Your task to perform on an android device: Go to wifi settings Image 0: 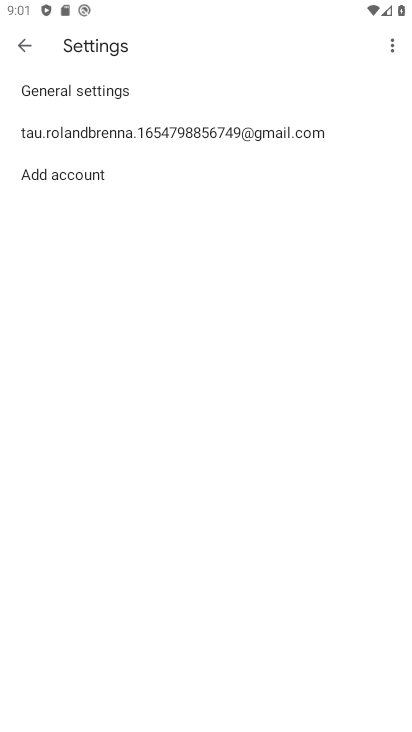
Step 0: press home button
Your task to perform on an android device: Go to wifi settings Image 1: 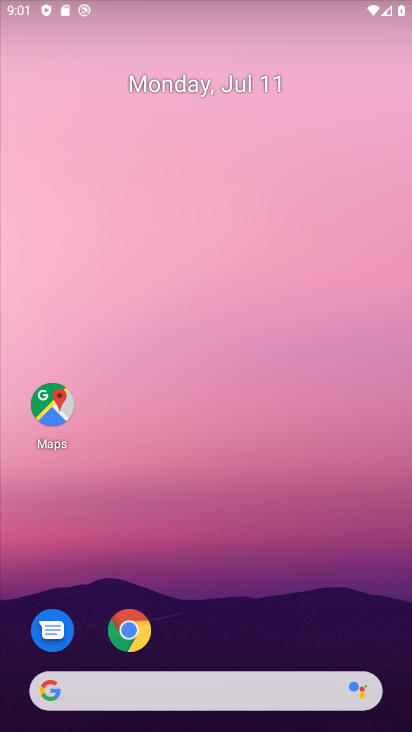
Step 1: drag from (299, 698) to (299, 113)
Your task to perform on an android device: Go to wifi settings Image 2: 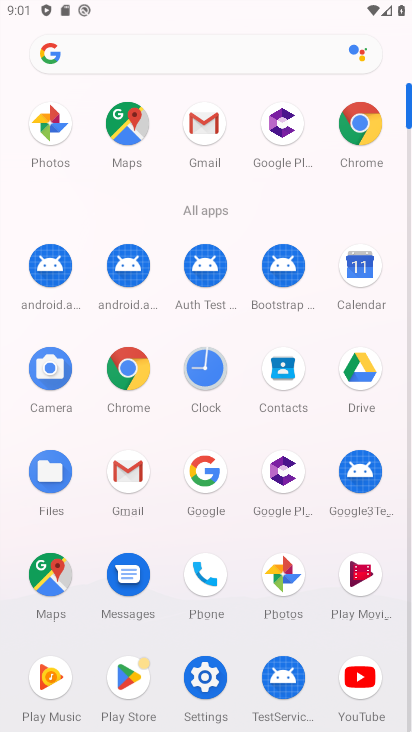
Step 2: click (199, 679)
Your task to perform on an android device: Go to wifi settings Image 3: 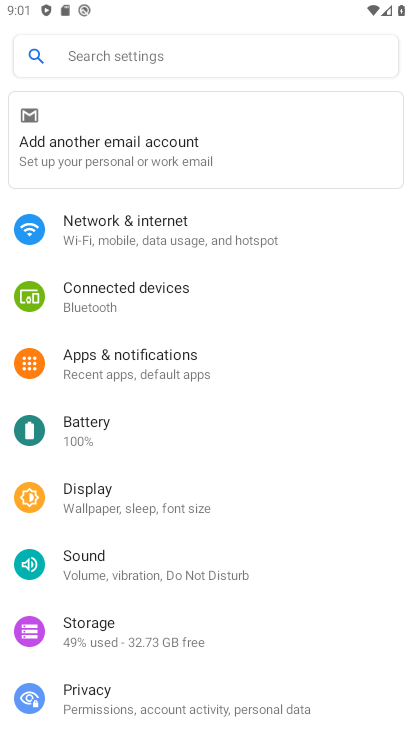
Step 3: click (143, 232)
Your task to perform on an android device: Go to wifi settings Image 4: 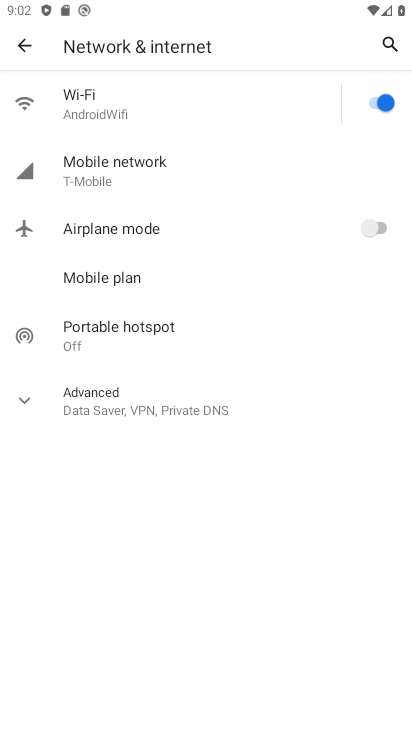
Step 4: press home button
Your task to perform on an android device: Go to wifi settings Image 5: 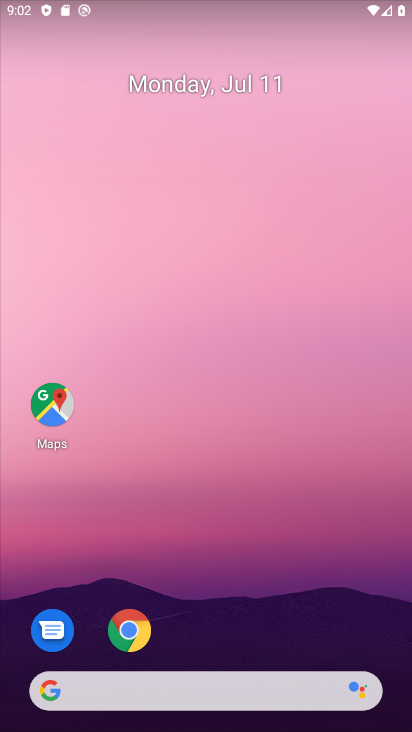
Step 5: drag from (356, 583) to (383, 144)
Your task to perform on an android device: Go to wifi settings Image 6: 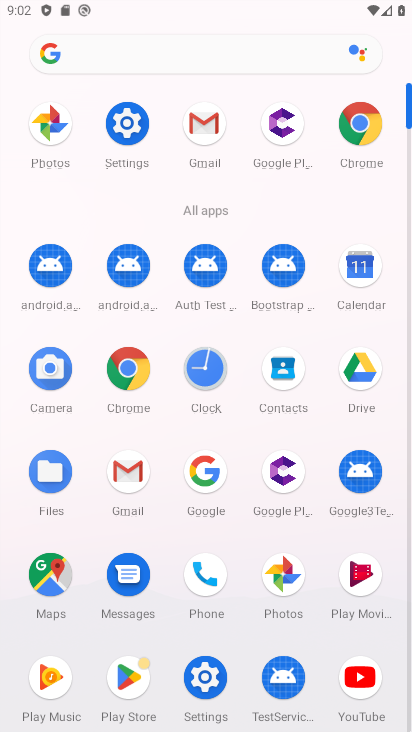
Step 6: click (147, 123)
Your task to perform on an android device: Go to wifi settings Image 7: 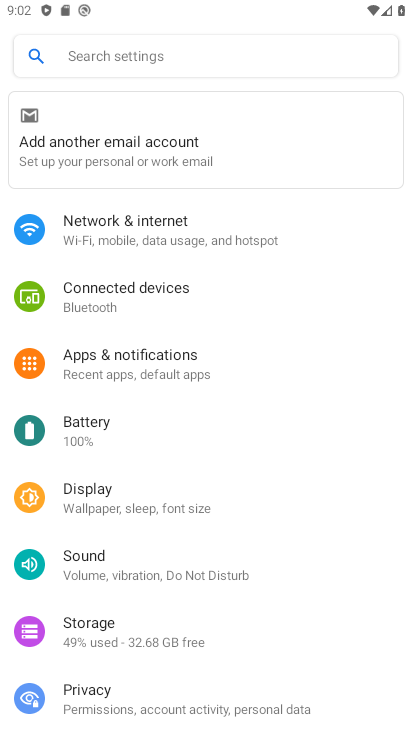
Step 7: click (117, 233)
Your task to perform on an android device: Go to wifi settings Image 8: 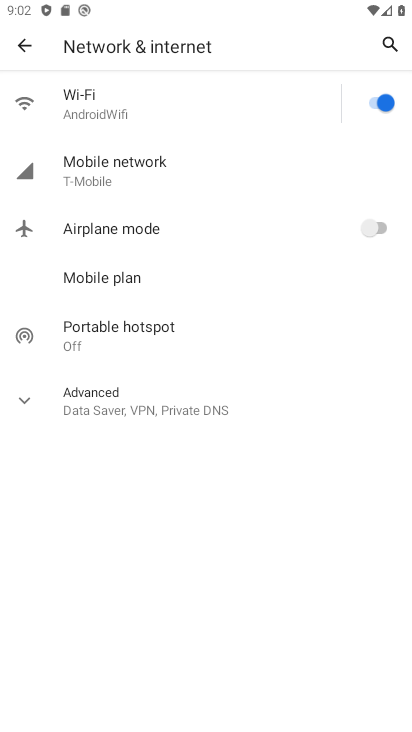
Step 8: click (122, 108)
Your task to perform on an android device: Go to wifi settings Image 9: 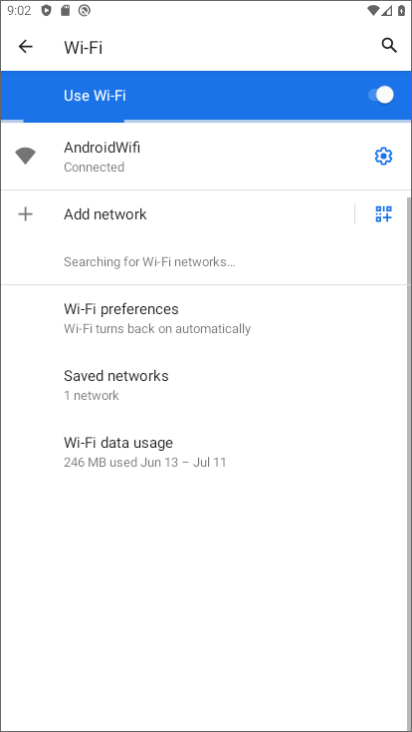
Step 9: task complete